Your task to perform on an android device: Open accessibility settings Image 0: 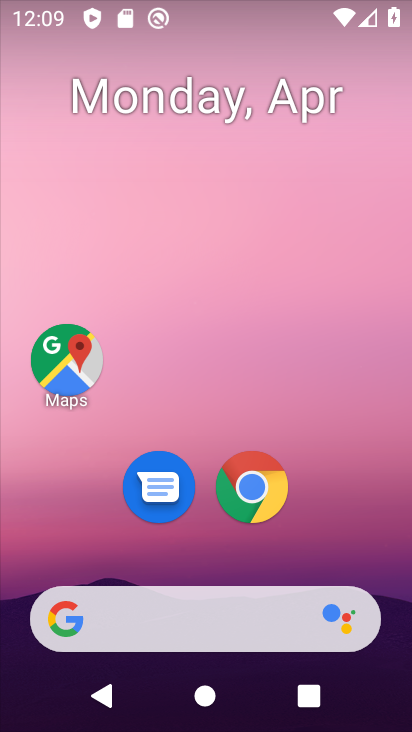
Step 0: drag from (393, 605) to (303, 61)
Your task to perform on an android device: Open accessibility settings Image 1: 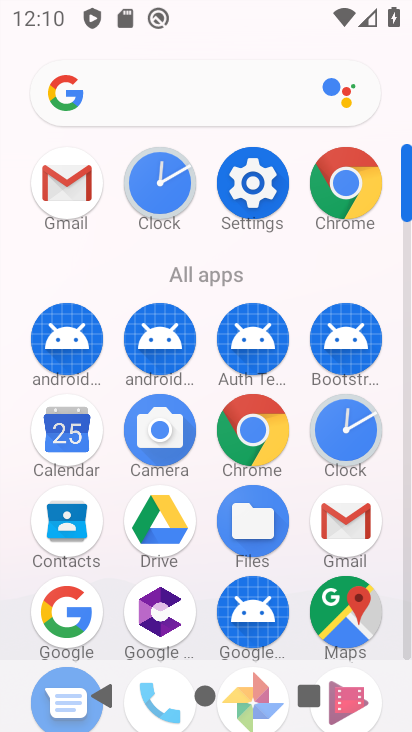
Step 1: click (242, 206)
Your task to perform on an android device: Open accessibility settings Image 2: 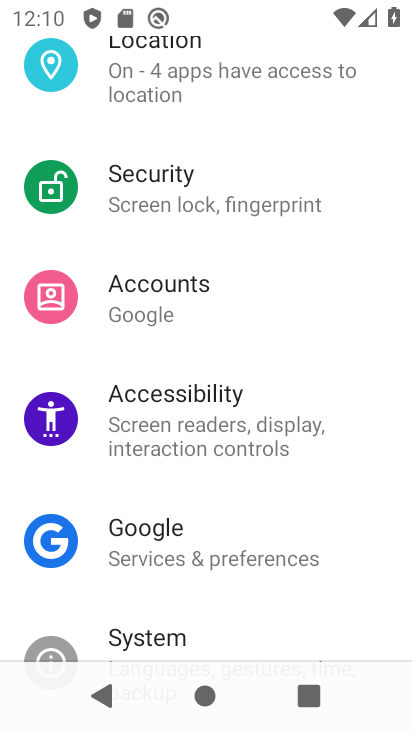
Step 2: click (194, 441)
Your task to perform on an android device: Open accessibility settings Image 3: 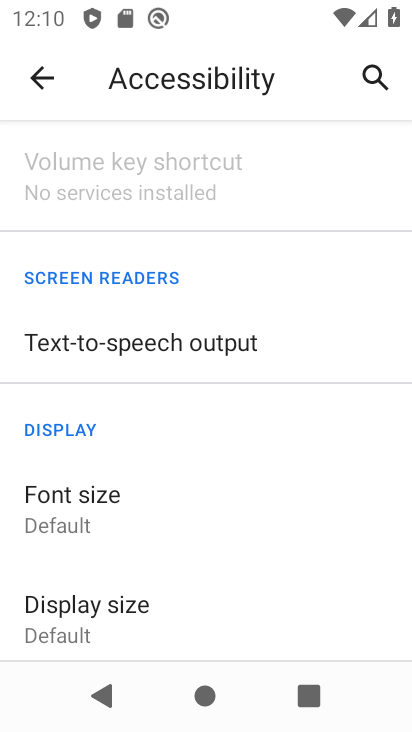
Step 3: task complete